Your task to perform on an android device: turn pop-ups on in chrome Image 0: 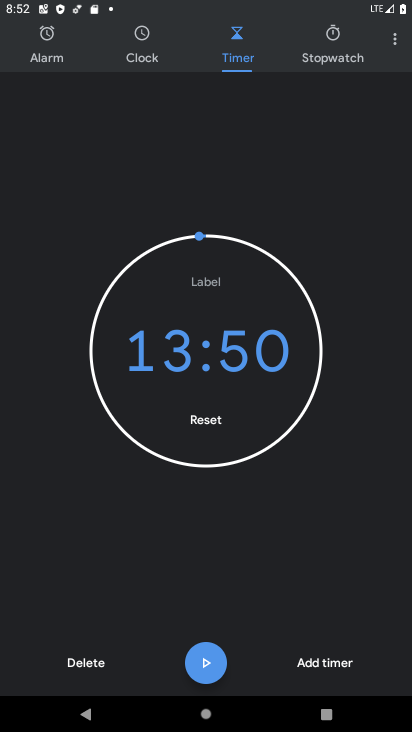
Step 0: press home button
Your task to perform on an android device: turn pop-ups on in chrome Image 1: 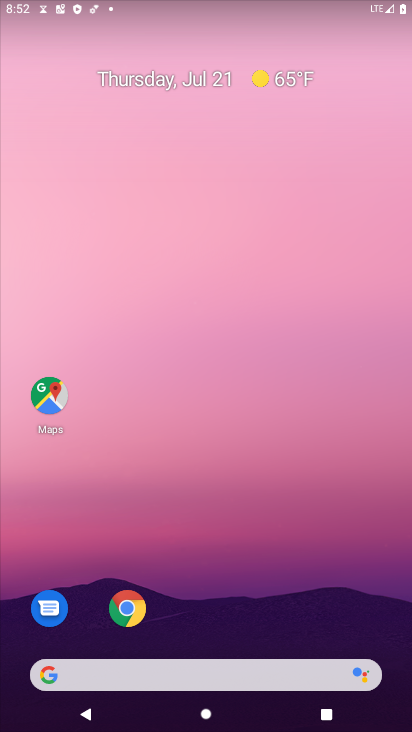
Step 1: click (126, 612)
Your task to perform on an android device: turn pop-ups on in chrome Image 2: 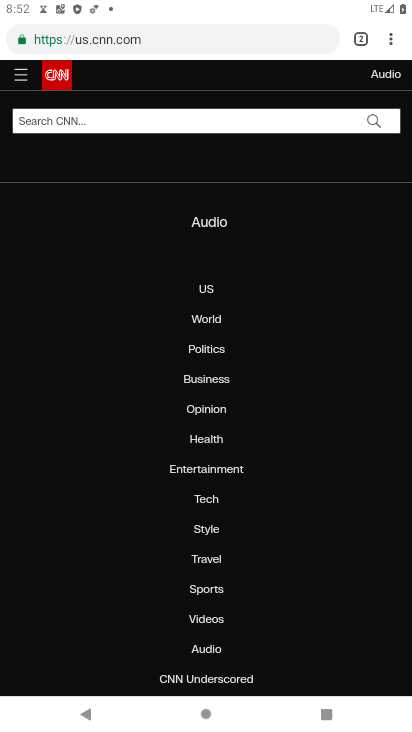
Step 2: click (391, 42)
Your task to perform on an android device: turn pop-ups on in chrome Image 3: 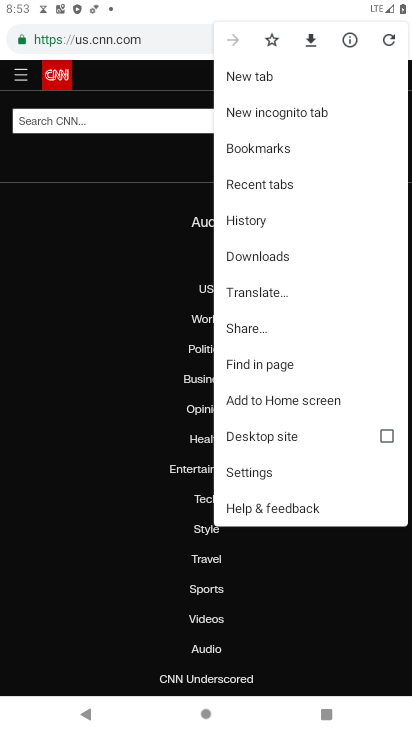
Step 3: click (260, 471)
Your task to perform on an android device: turn pop-ups on in chrome Image 4: 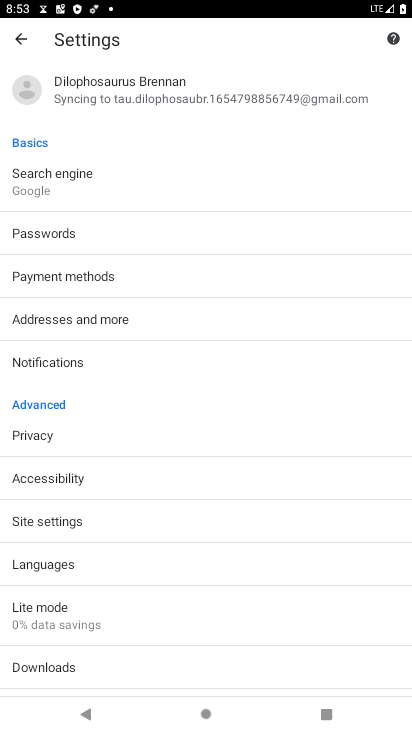
Step 4: click (54, 522)
Your task to perform on an android device: turn pop-ups on in chrome Image 5: 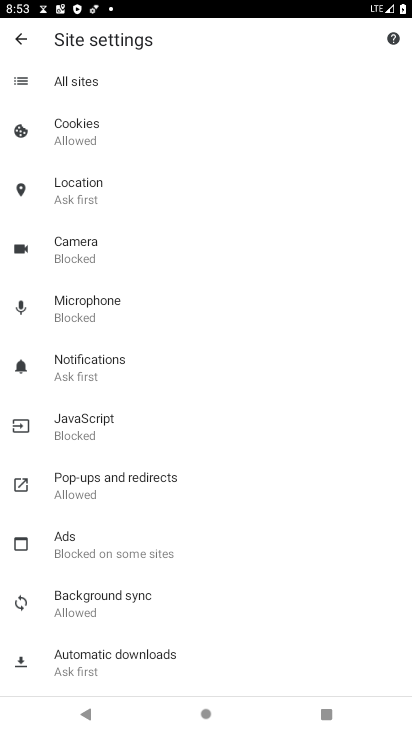
Step 5: click (78, 484)
Your task to perform on an android device: turn pop-ups on in chrome Image 6: 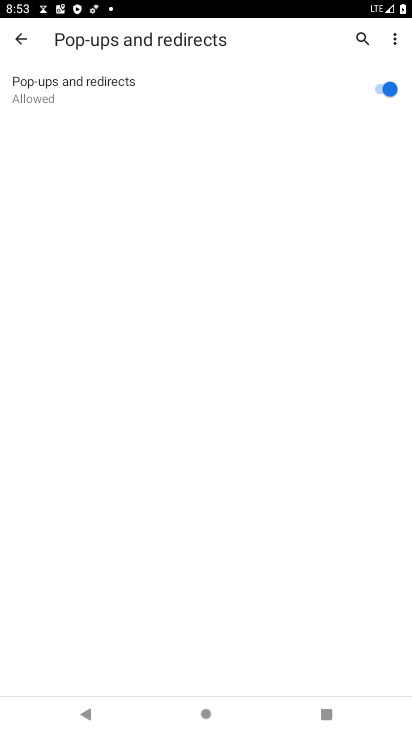
Step 6: task complete